Your task to perform on an android device: Open the Play Movies app and select the watchlist tab. Image 0: 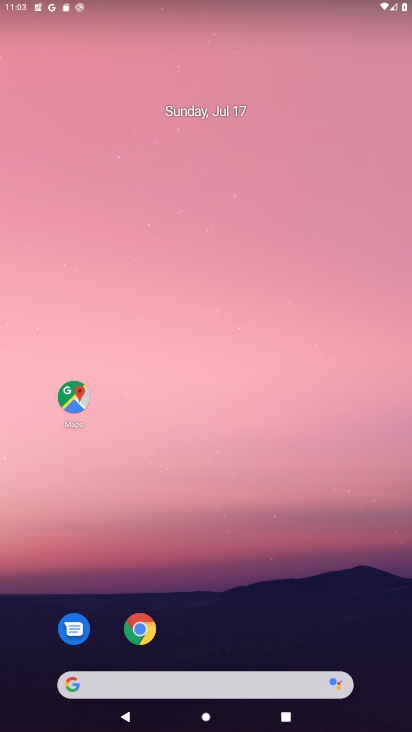
Step 0: drag from (186, 687) to (282, 44)
Your task to perform on an android device: Open the Play Movies app and select the watchlist tab. Image 1: 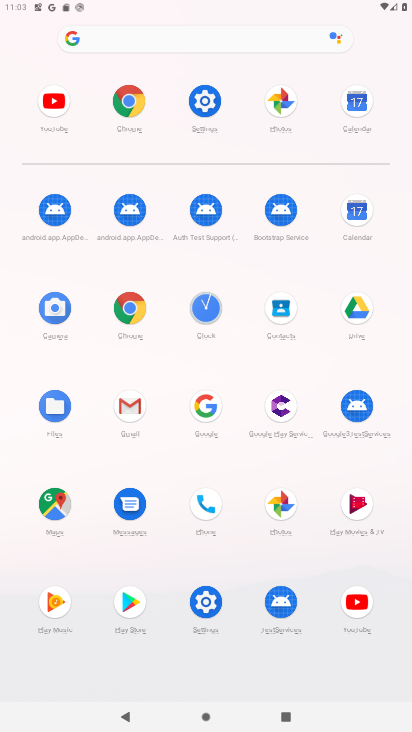
Step 1: click (357, 503)
Your task to perform on an android device: Open the Play Movies app and select the watchlist tab. Image 2: 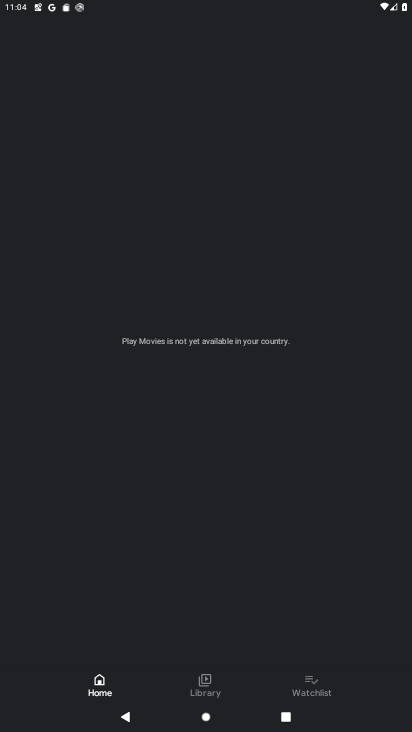
Step 2: click (311, 681)
Your task to perform on an android device: Open the Play Movies app and select the watchlist tab. Image 3: 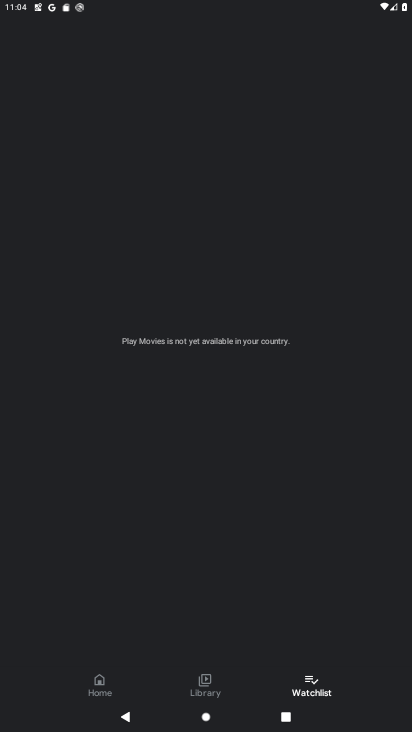
Step 3: task complete